Your task to perform on an android device: turn off javascript in the chrome app Image 0: 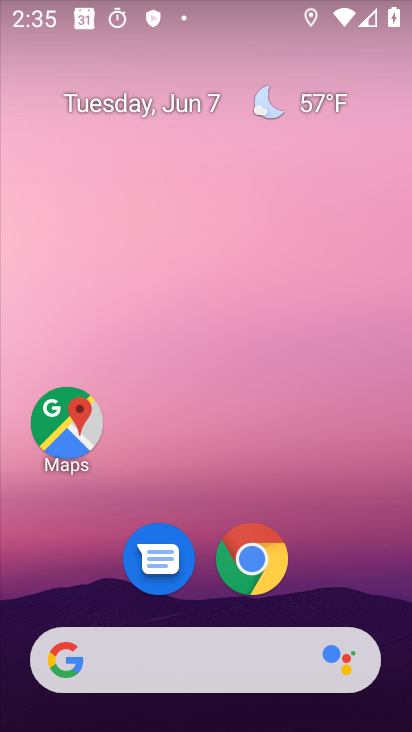
Step 0: drag from (227, 186) to (202, 15)
Your task to perform on an android device: turn off javascript in the chrome app Image 1: 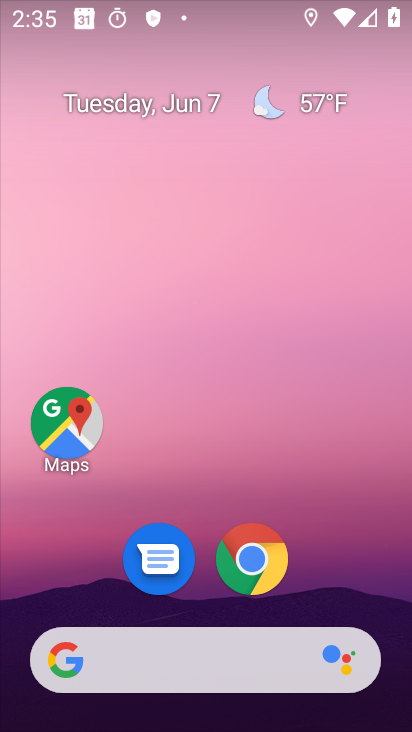
Step 1: drag from (336, 597) to (205, 9)
Your task to perform on an android device: turn off javascript in the chrome app Image 2: 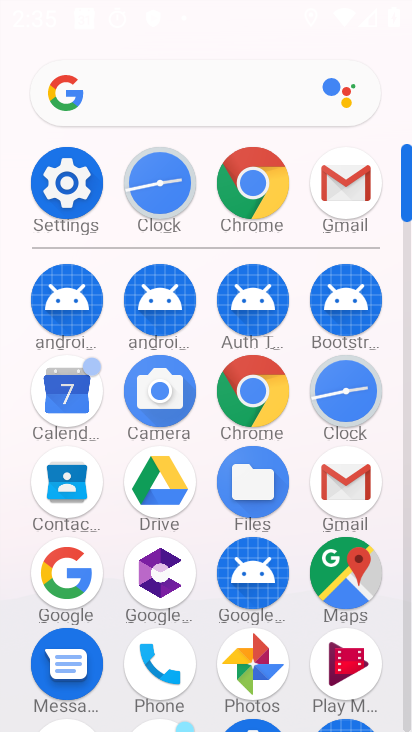
Step 2: click (0, 224)
Your task to perform on an android device: turn off javascript in the chrome app Image 3: 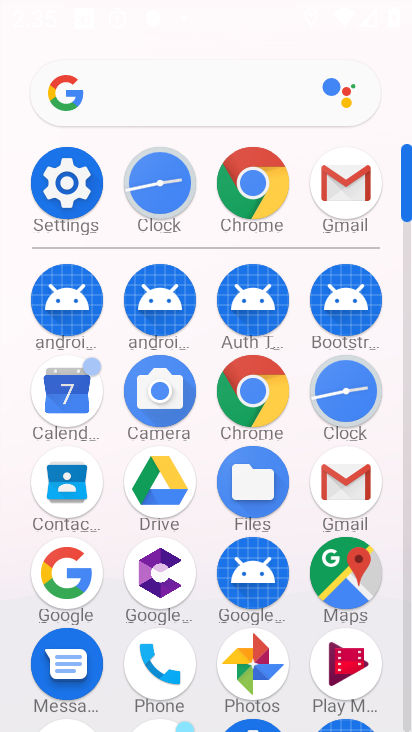
Step 3: click (254, 389)
Your task to perform on an android device: turn off javascript in the chrome app Image 4: 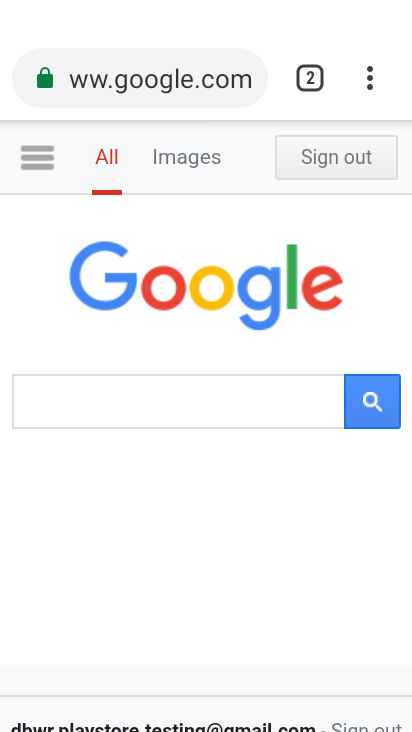
Step 4: drag from (369, 73) to (150, 600)
Your task to perform on an android device: turn off javascript in the chrome app Image 5: 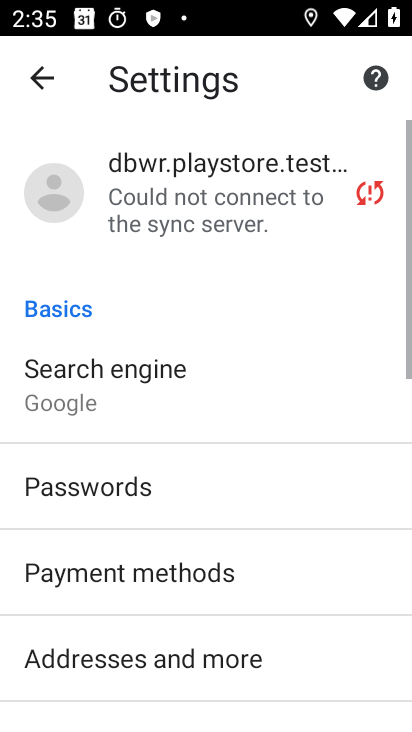
Step 5: drag from (220, 569) to (225, 220)
Your task to perform on an android device: turn off javascript in the chrome app Image 6: 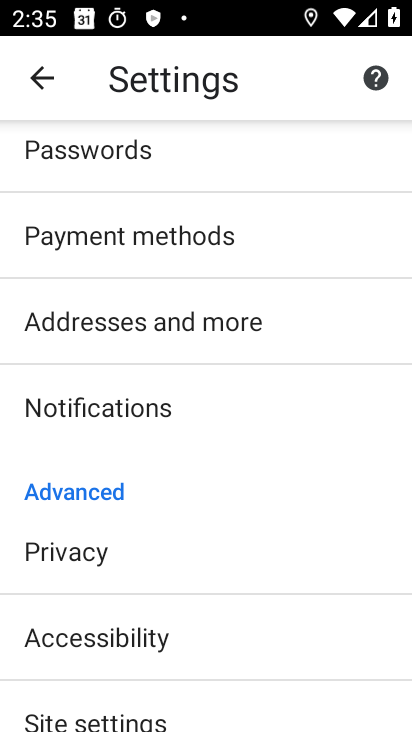
Step 6: drag from (184, 654) to (254, 305)
Your task to perform on an android device: turn off javascript in the chrome app Image 7: 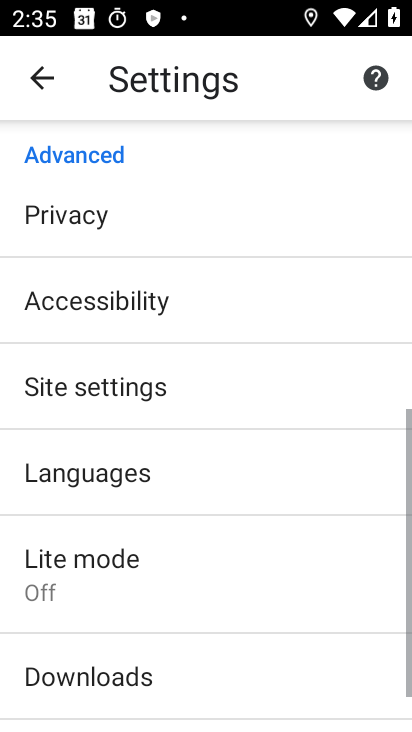
Step 7: click (109, 219)
Your task to perform on an android device: turn off javascript in the chrome app Image 8: 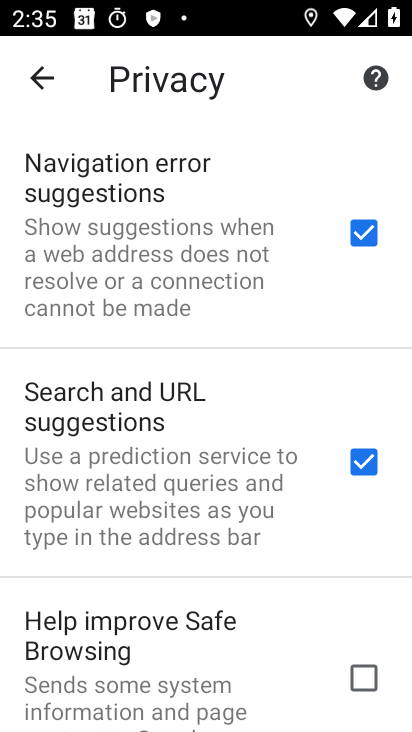
Step 8: click (42, 87)
Your task to perform on an android device: turn off javascript in the chrome app Image 9: 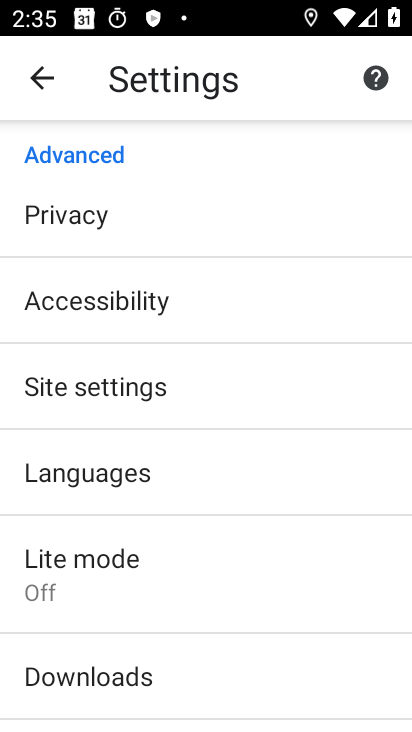
Step 9: task complete